Your task to perform on an android device: show emergency info Image 0: 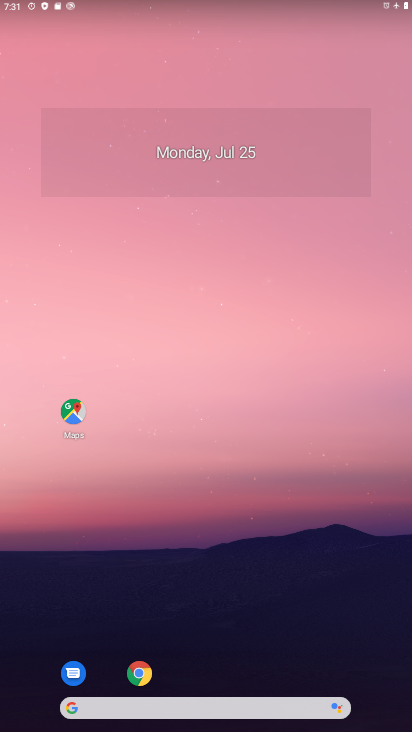
Step 0: drag from (359, 606) to (198, 14)
Your task to perform on an android device: show emergency info Image 1: 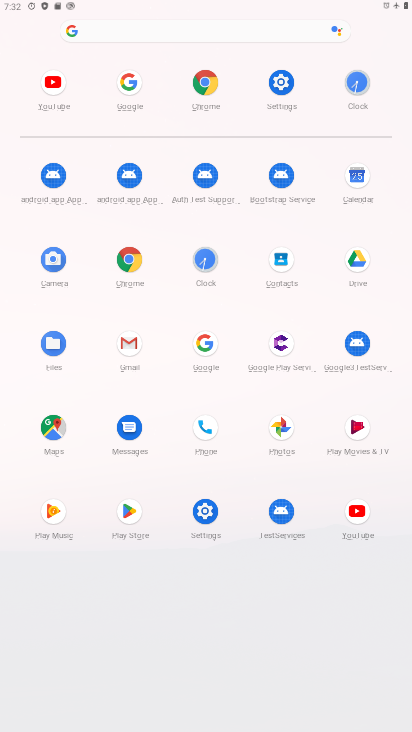
Step 1: click (209, 512)
Your task to perform on an android device: show emergency info Image 2: 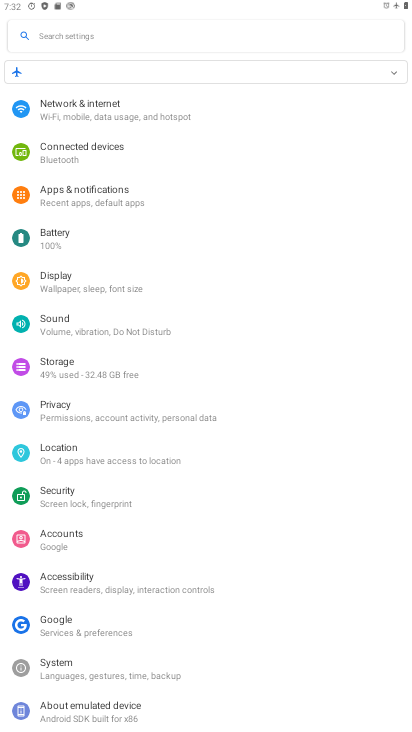
Step 2: drag from (163, 700) to (199, 95)
Your task to perform on an android device: show emergency info Image 3: 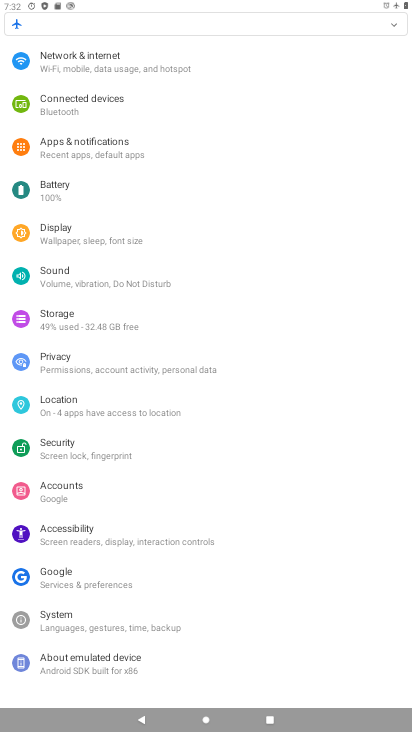
Step 3: click (97, 658)
Your task to perform on an android device: show emergency info Image 4: 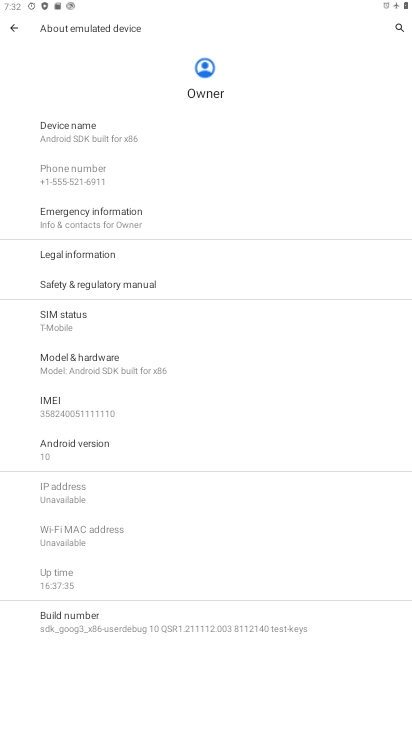
Step 4: click (85, 224)
Your task to perform on an android device: show emergency info Image 5: 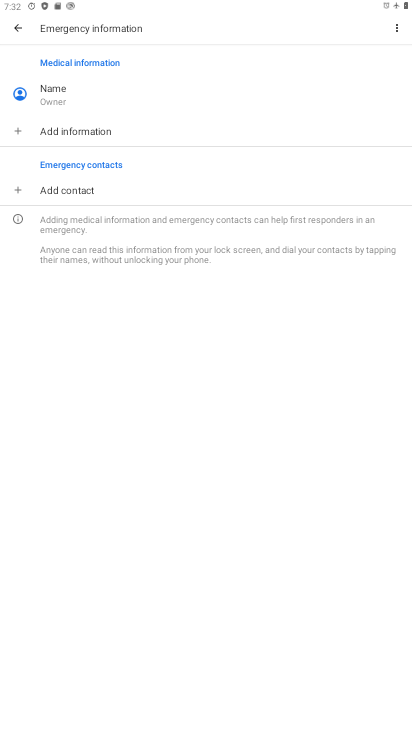
Step 5: task complete